Your task to perform on an android device: open app "Microsoft Excel" (install if not already installed) Image 0: 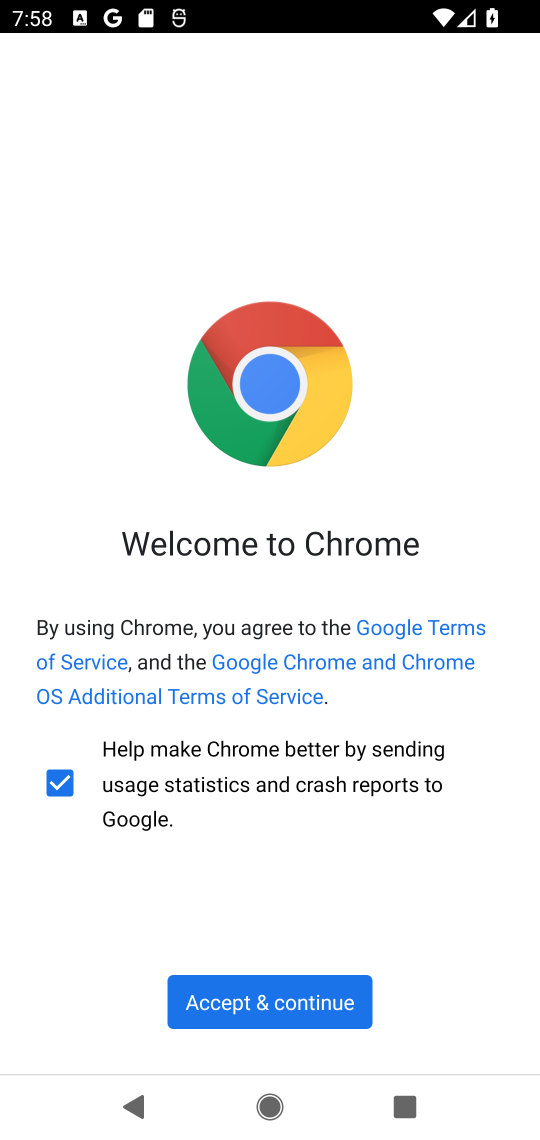
Step 0: press home button
Your task to perform on an android device: open app "Microsoft Excel" (install if not already installed) Image 1: 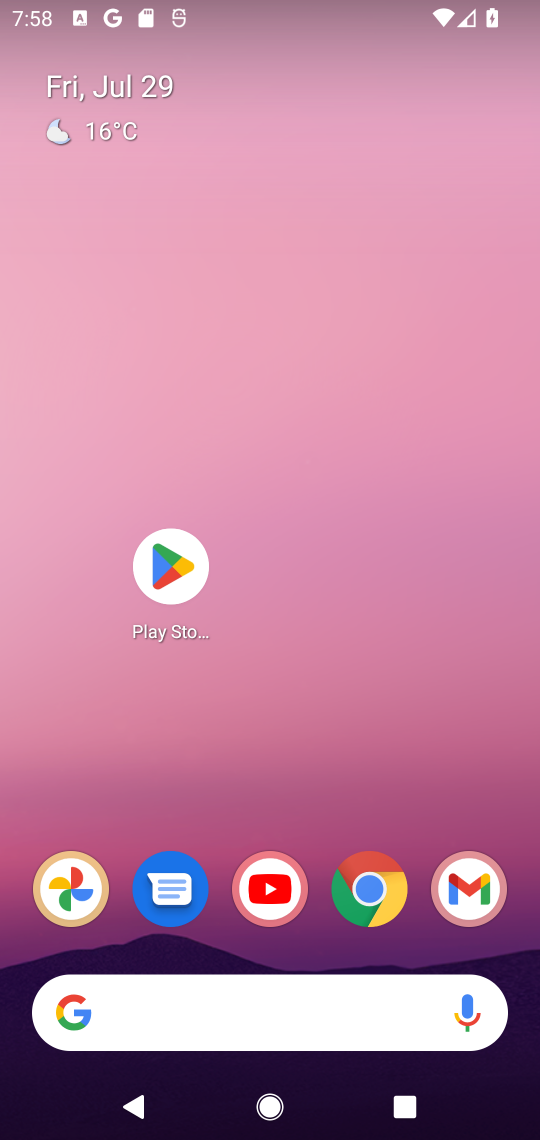
Step 1: click (165, 563)
Your task to perform on an android device: open app "Microsoft Excel" (install if not already installed) Image 2: 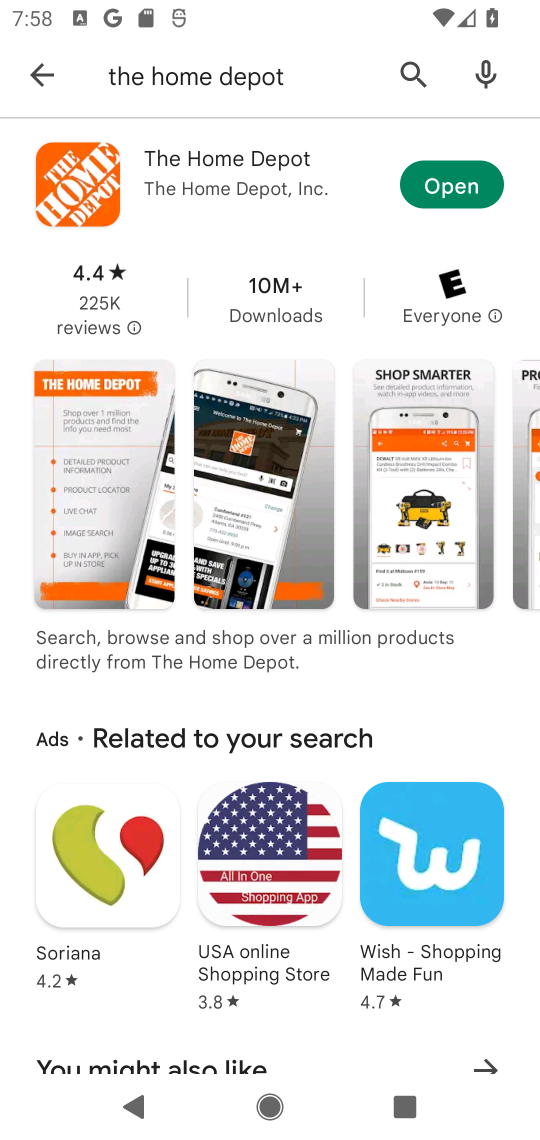
Step 2: click (409, 62)
Your task to perform on an android device: open app "Microsoft Excel" (install if not already installed) Image 3: 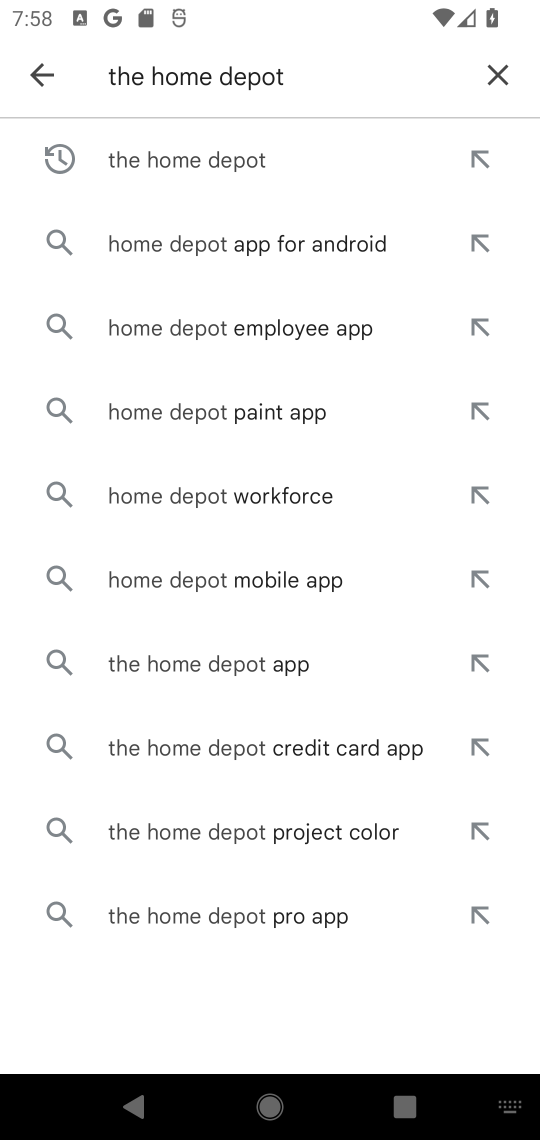
Step 3: click (487, 78)
Your task to perform on an android device: open app "Microsoft Excel" (install if not already installed) Image 4: 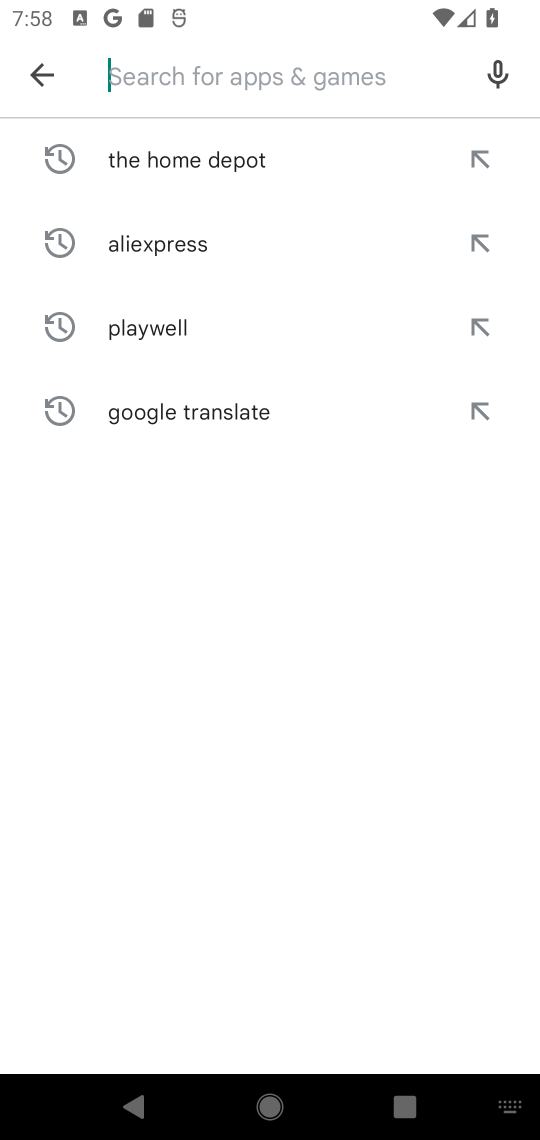
Step 4: type "Microsoft Excel"
Your task to perform on an android device: open app "Microsoft Excel" (install if not already installed) Image 5: 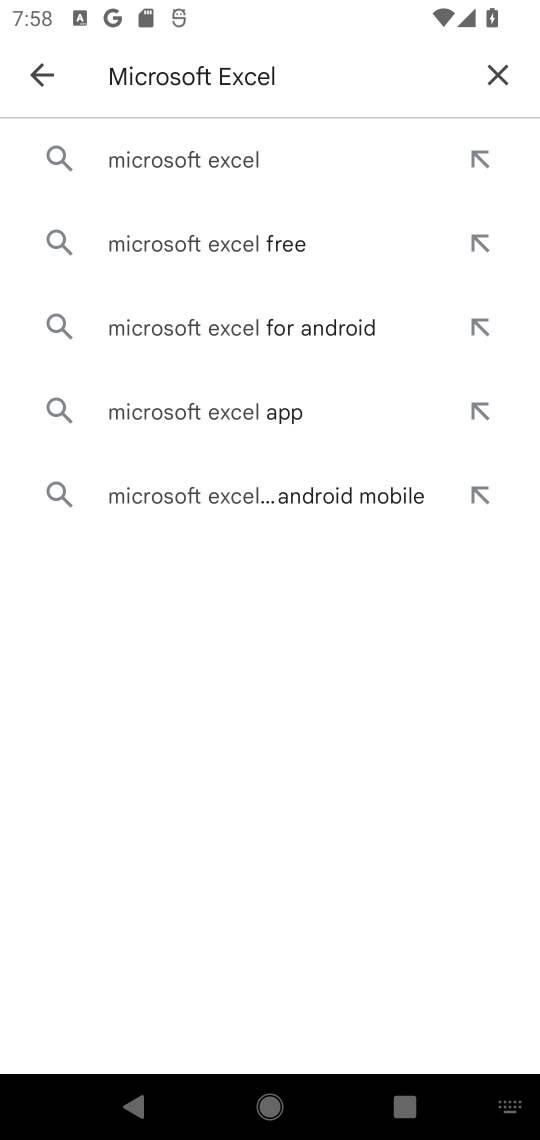
Step 5: click (217, 160)
Your task to perform on an android device: open app "Microsoft Excel" (install if not already installed) Image 6: 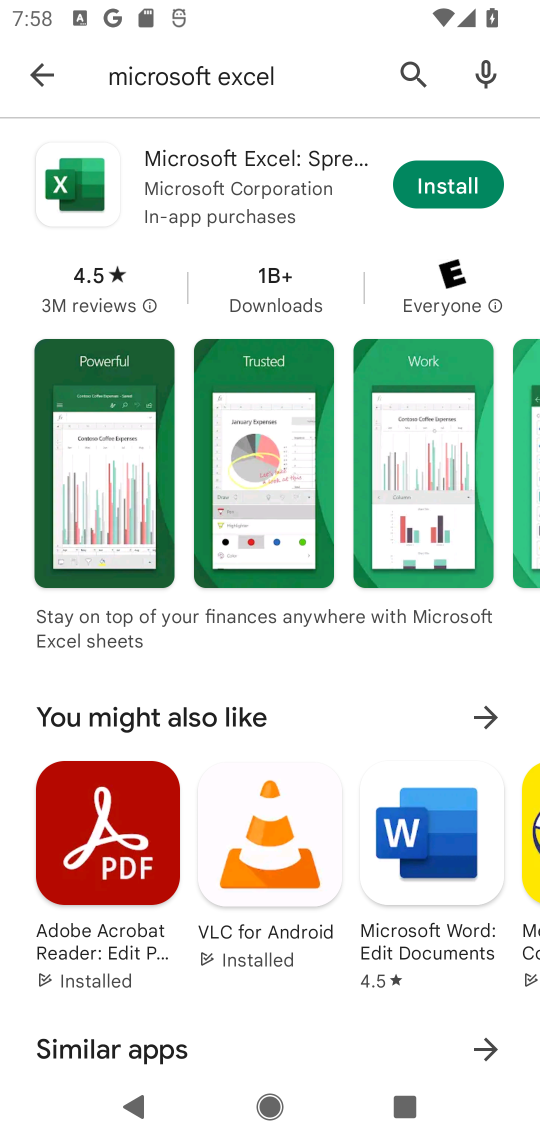
Step 6: click (432, 181)
Your task to perform on an android device: open app "Microsoft Excel" (install if not already installed) Image 7: 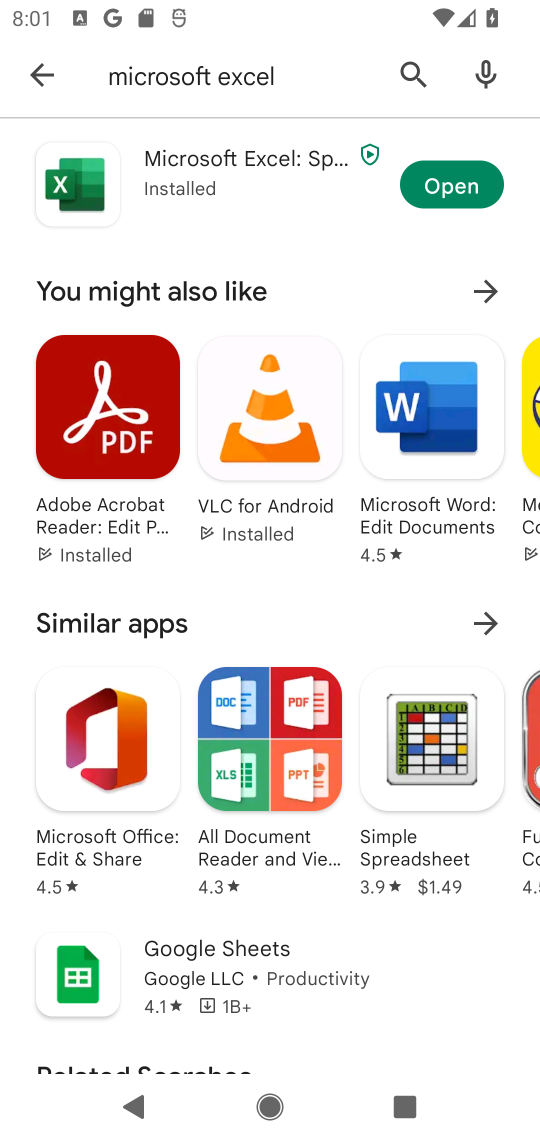
Step 7: click (456, 184)
Your task to perform on an android device: open app "Microsoft Excel" (install if not already installed) Image 8: 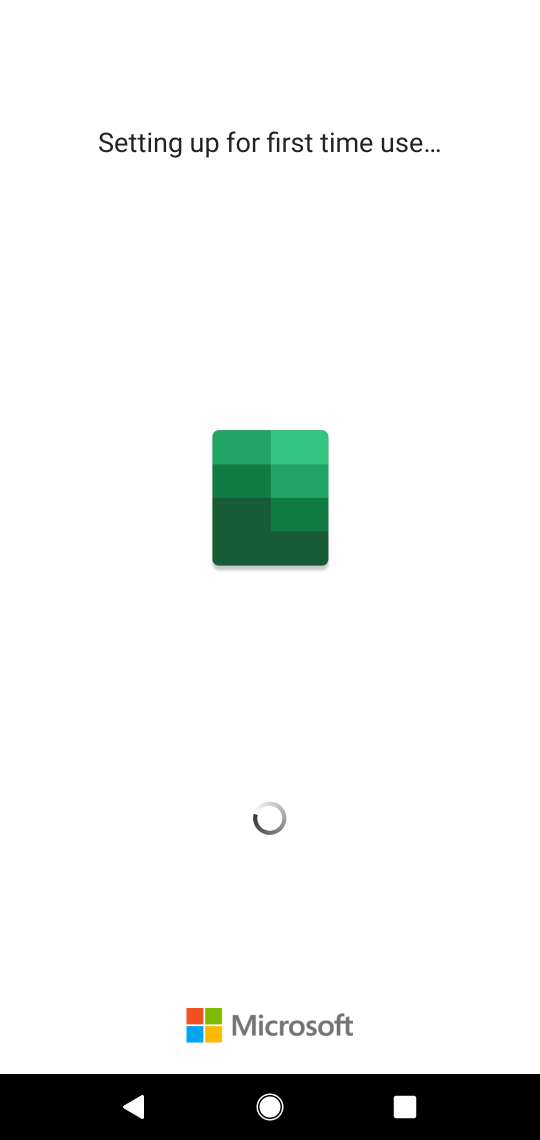
Step 8: task complete